Your task to perform on an android device: Go to sound settings Image 0: 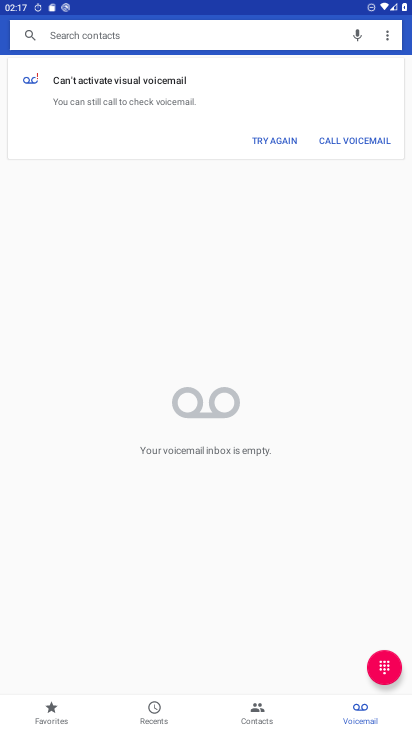
Step 0: press home button
Your task to perform on an android device: Go to sound settings Image 1: 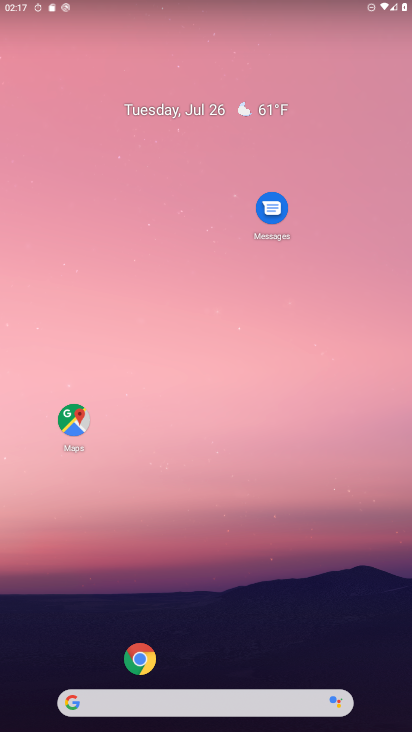
Step 1: drag from (129, 447) to (226, 196)
Your task to perform on an android device: Go to sound settings Image 2: 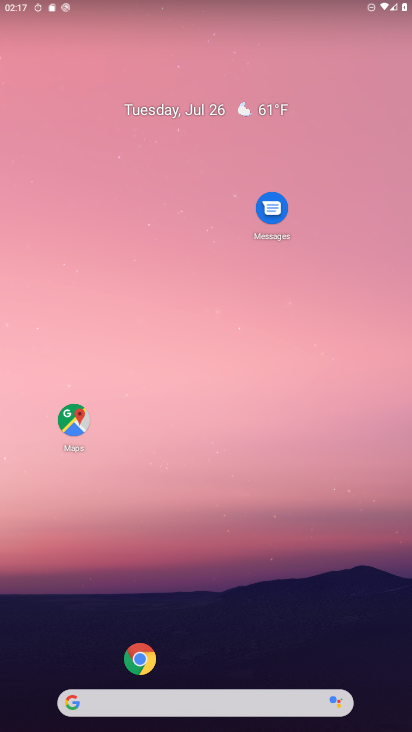
Step 2: drag from (128, 429) to (195, 143)
Your task to perform on an android device: Go to sound settings Image 3: 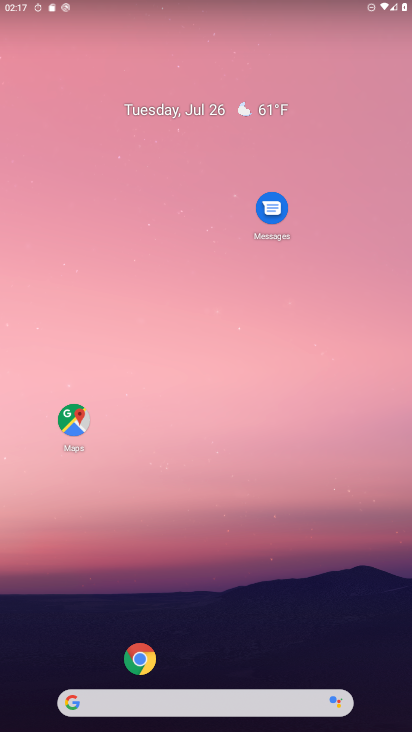
Step 3: drag from (76, 478) to (150, 155)
Your task to perform on an android device: Go to sound settings Image 4: 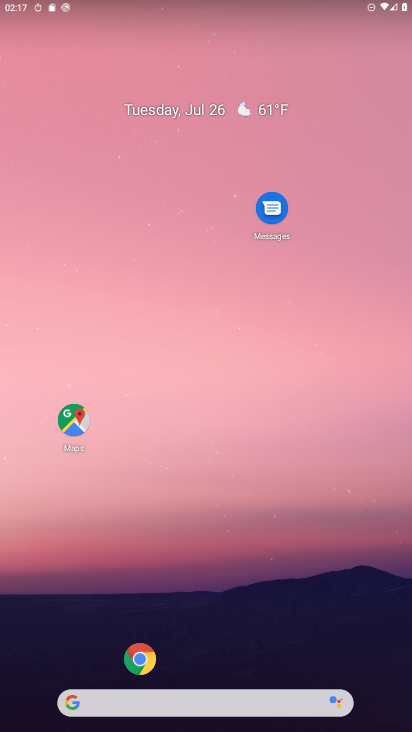
Step 4: drag from (31, 699) to (156, 64)
Your task to perform on an android device: Go to sound settings Image 5: 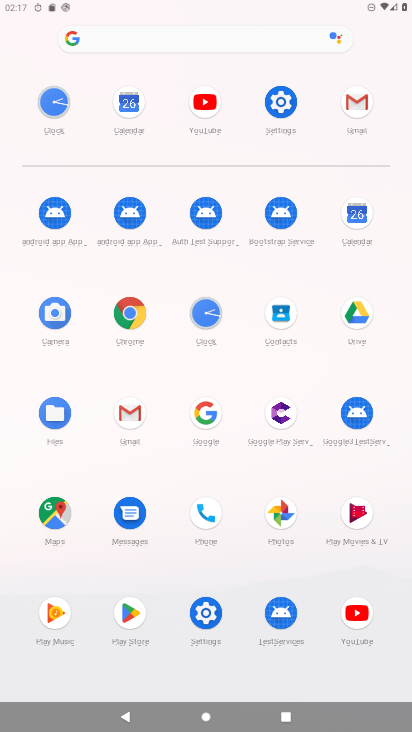
Step 5: click (211, 614)
Your task to perform on an android device: Go to sound settings Image 6: 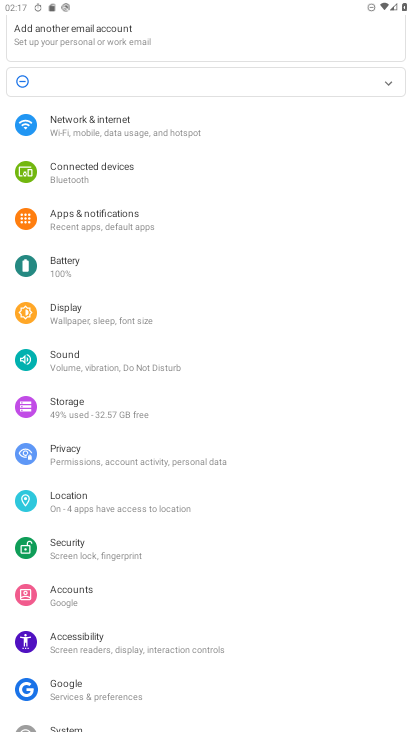
Step 6: click (131, 351)
Your task to perform on an android device: Go to sound settings Image 7: 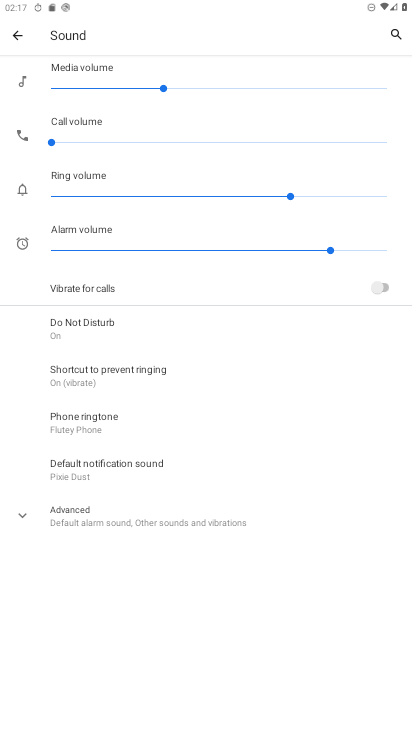
Step 7: task complete